Your task to perform on an android device: What's the weather like in Singapore? Image 0: 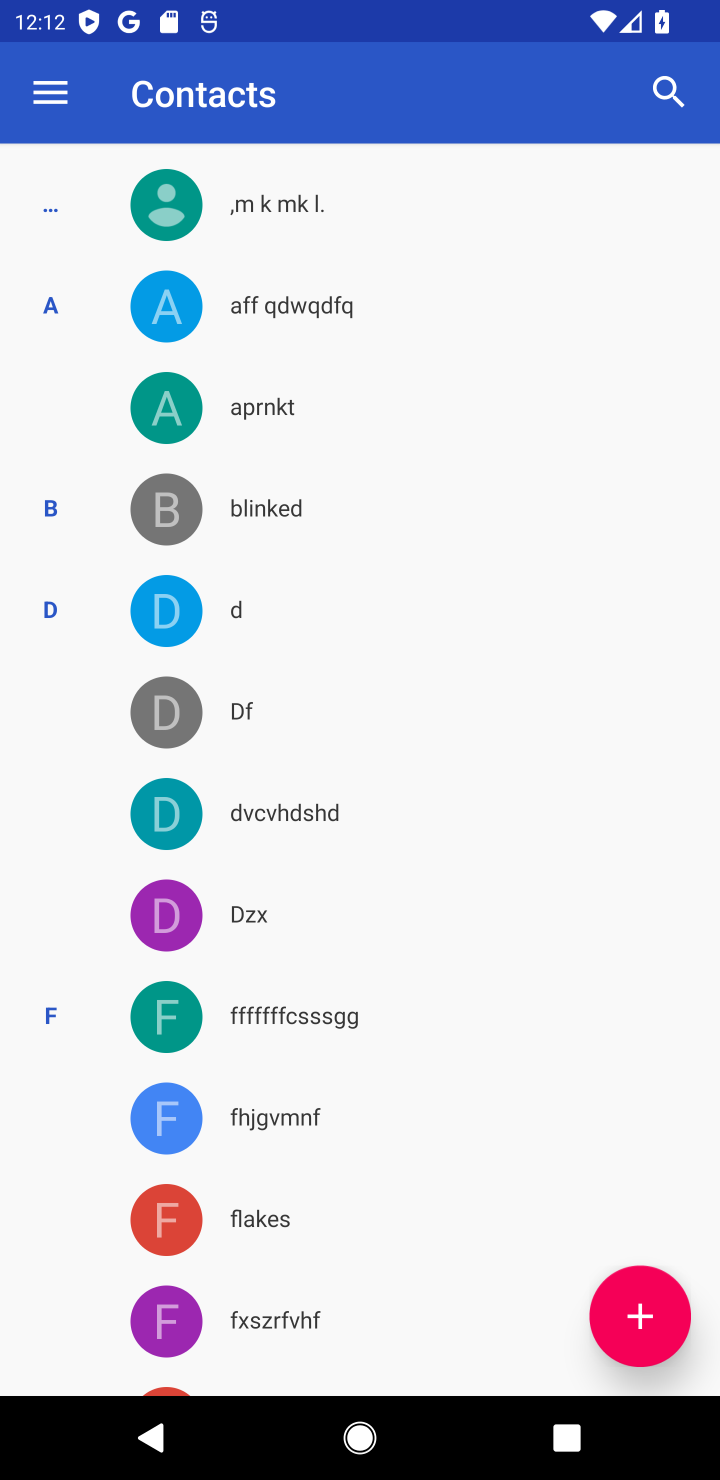
Step 0: press home button
Your task to perform on an android device: What's the weather like in Singapore? Image 1: 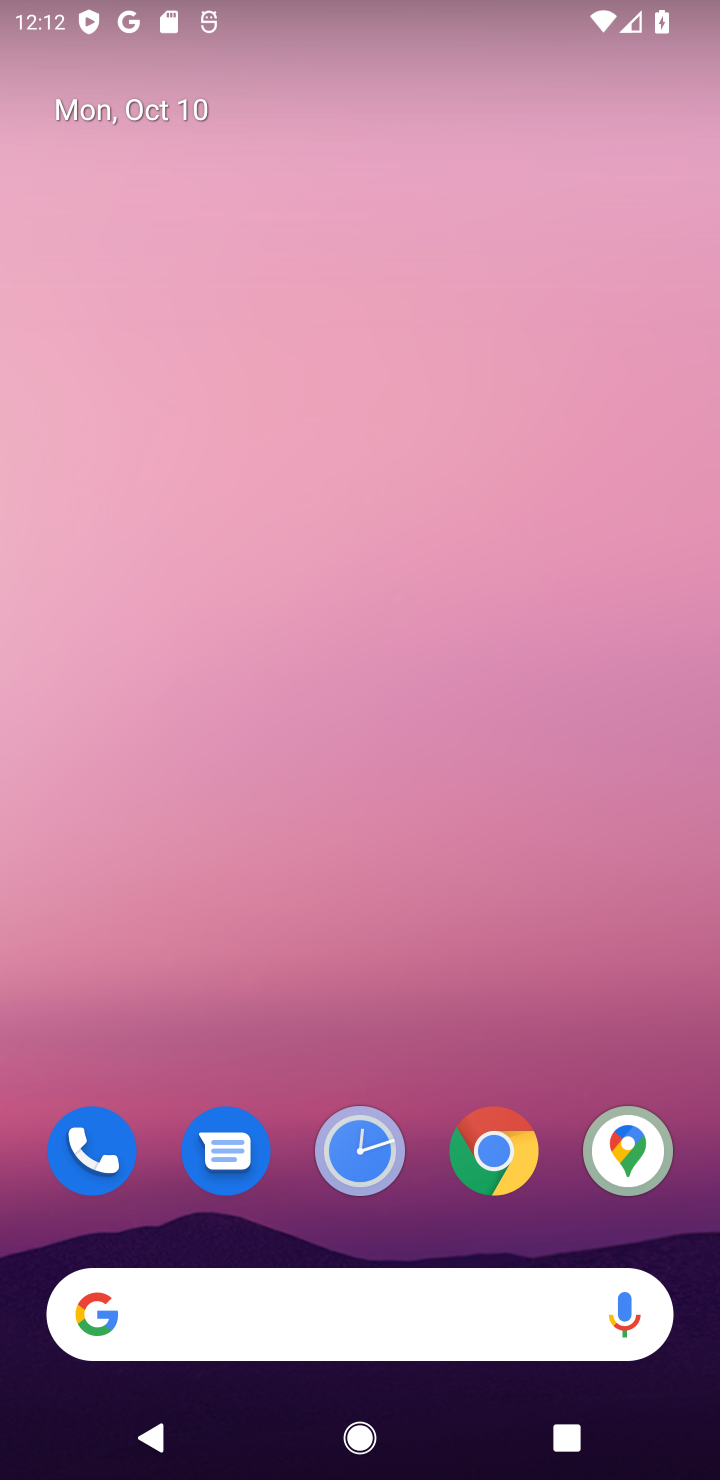
Step 1: click (229, 1289)
Your task to perform on an android device: What's the weather like in Singapore? Image 2: 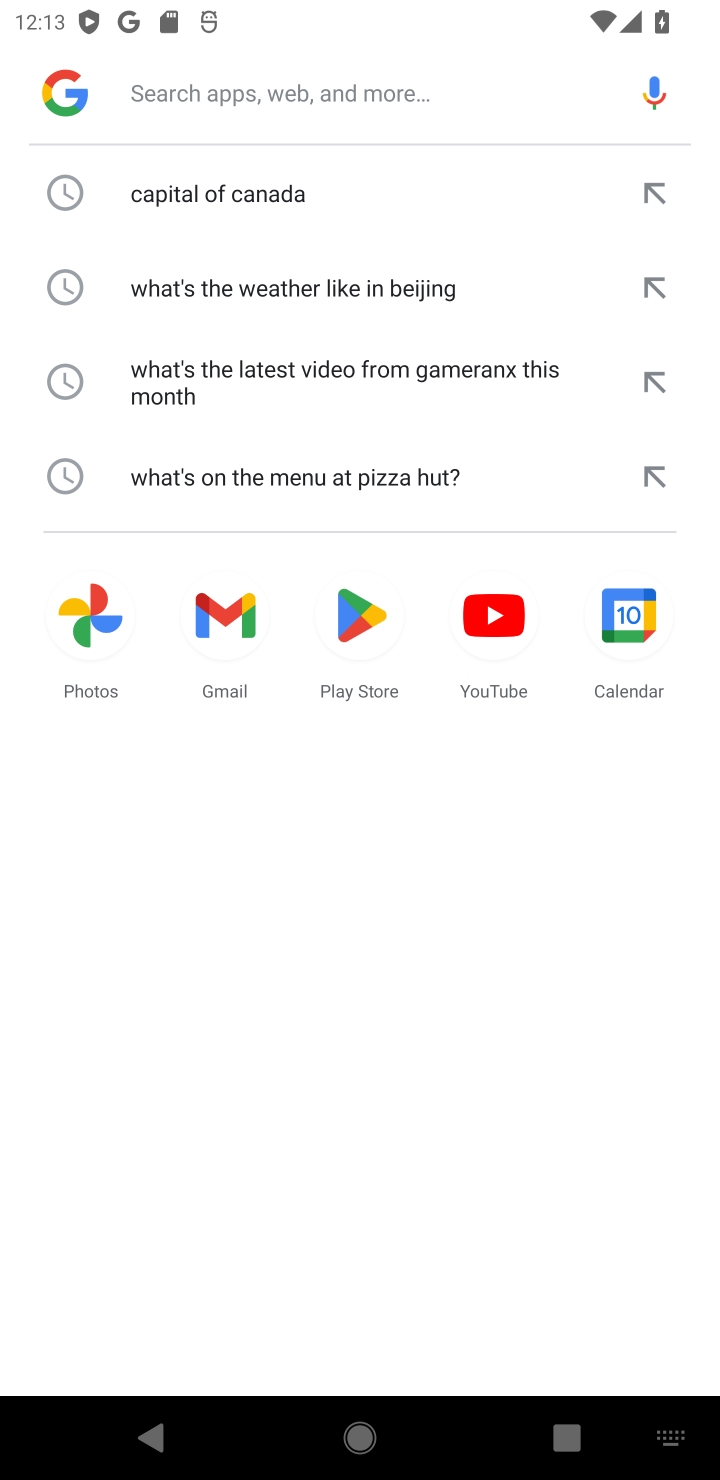
Step 2: type "weather like in singapore?"
Your task to perform on an android device: What's the weather like in Singapore? Image 3: 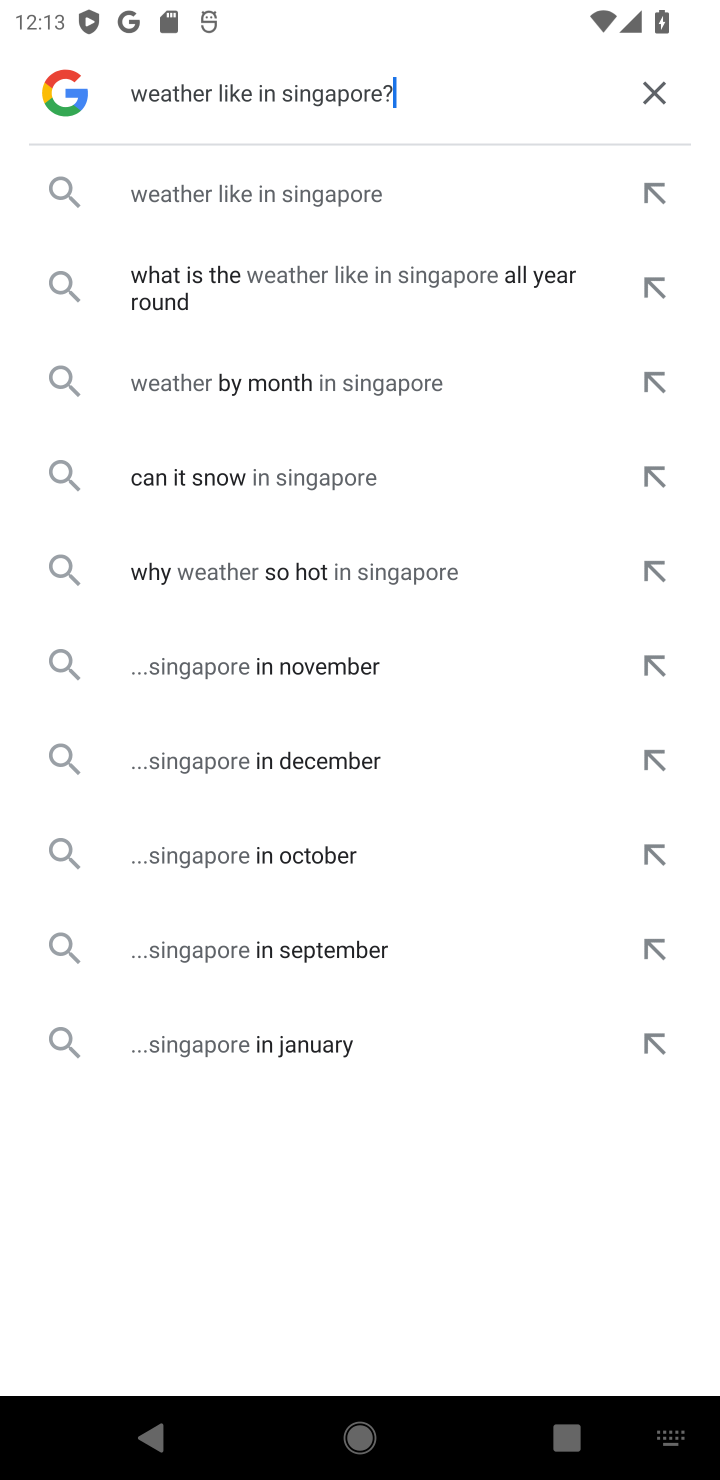
Step 3: click (295, 195)
Your task to perform on an android device: What's the weather like in Singapore? Image 4: 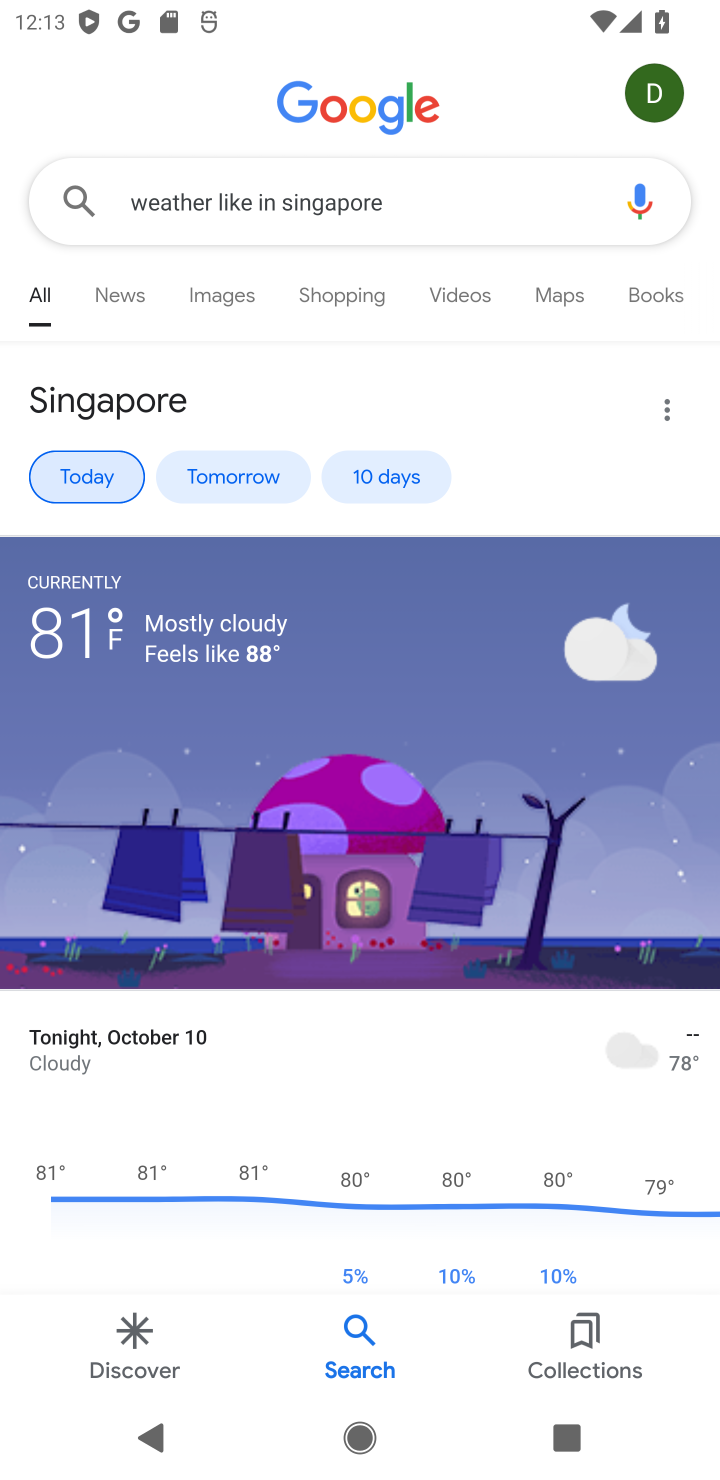
Step 4: task complete